Your task to perform on an android device: Open Google Maps and go to "Timeline" Image 0: 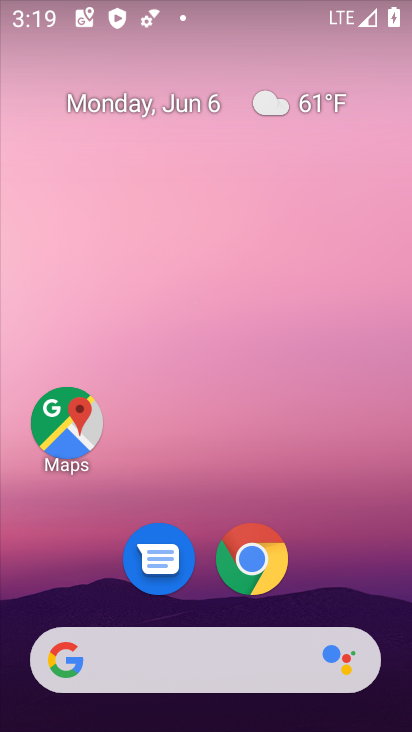
Step 0: drag from (186, 608) to (403, 291)
Your task to perform on an android device: Open Google Maps and go to "Timeline" Image 1: 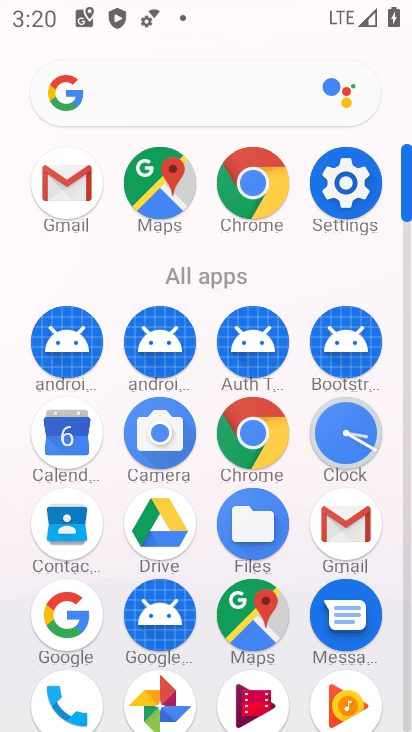
Step 1: click (251, 631)
Your task to perform on an android device: Open Google Maps and go to "Timeline" Image 2: 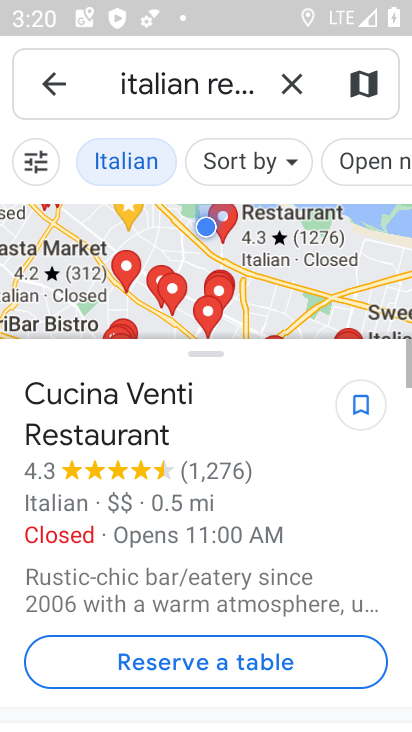
Step 2: click (68, 75)
Your task to perform on an android device: Open Google Maps and go to "Timeline" Image 3: 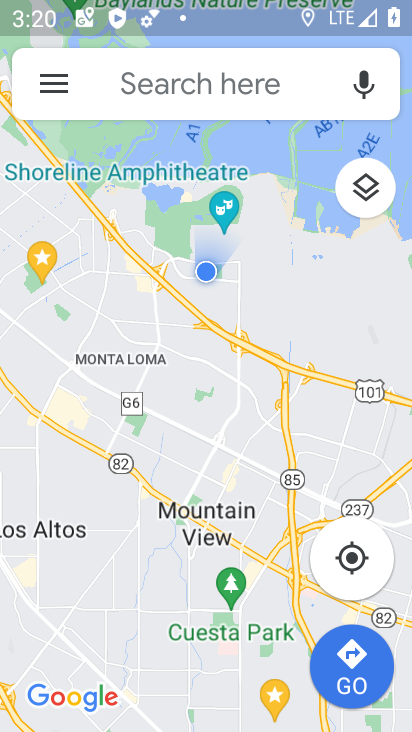
Step 3: click (62, 102)
Your task to perform on an android device: Open Google Maps and go to "Timeline" Image 4: 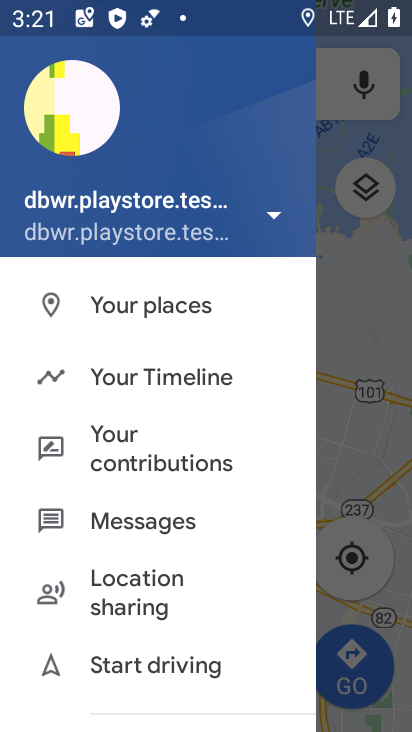
Step 4: click (138, 380)
Your task to perform on an android device: Open Google Maps and go to "Timeline" Image 5: 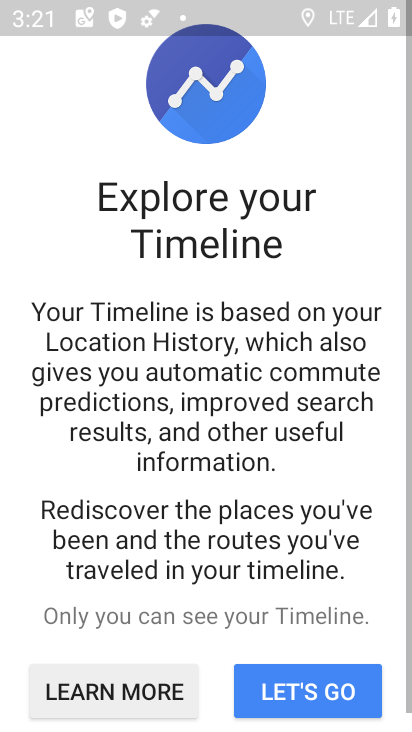
Step 5: task complete